Your task to perform on an android device: Open network settings Image 0: 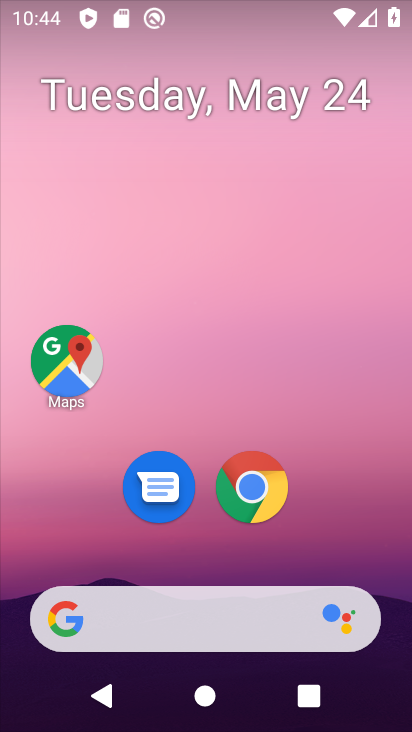
Step 0: drag from (188, 579) to (262, 31)
Your task to perform on an android device: Open network settings Image 1: 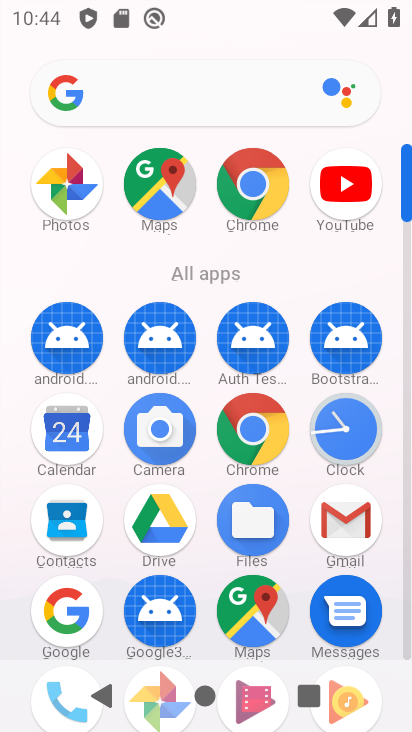
Step 1: drag from (185, 621) to (251, 217)
Your task to perform on an android device: Open network settings Image 2: 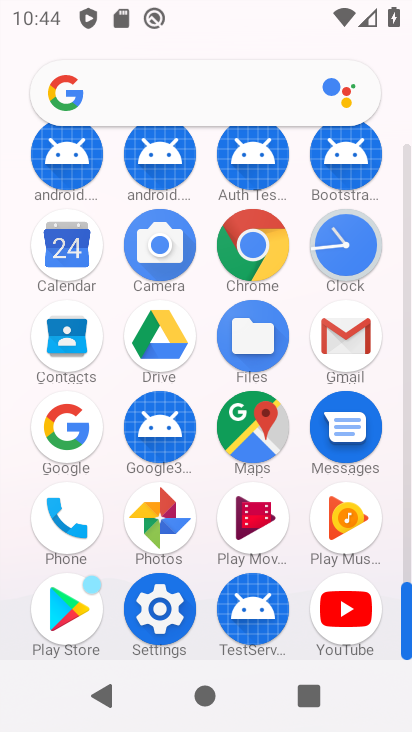
Step 2: click (160, 616)
Your task to perform on an android device: Open network settings Image 3: 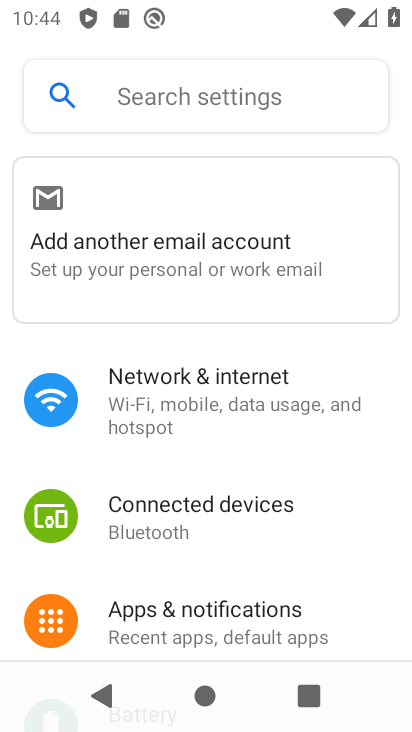
Step 3: click (200, 405)
Your task to perform on an android device: Open network settings Image 4: 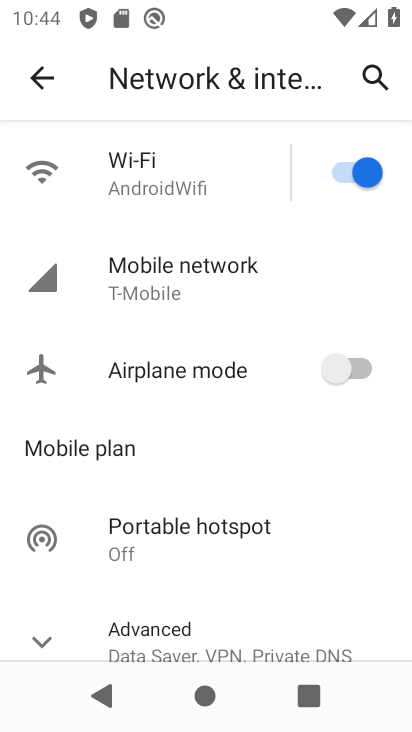
Step 4: task complete